Your task to perform on an android device: Open internet settings Image 0: 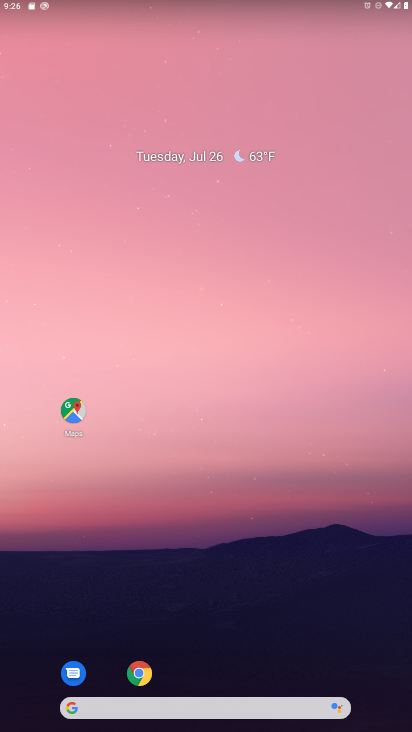
Step 0: drag from (340, 619) to (173, 100)
Your task to perform on an android device: Open internet settings Image 1: 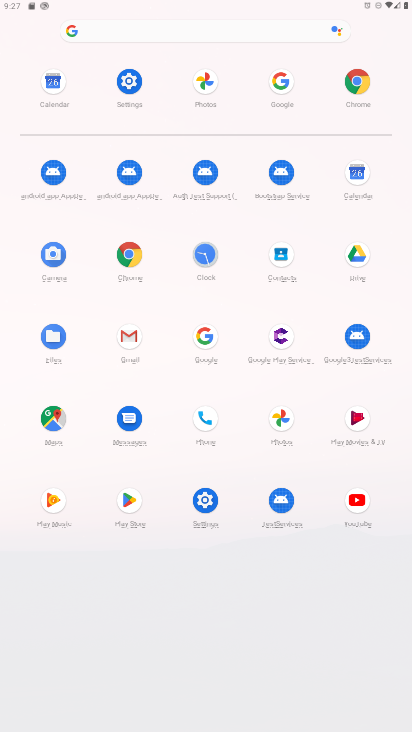
Step 1: click (205, 505)
Your task to perform on an android device: Open internet settings Image 2: 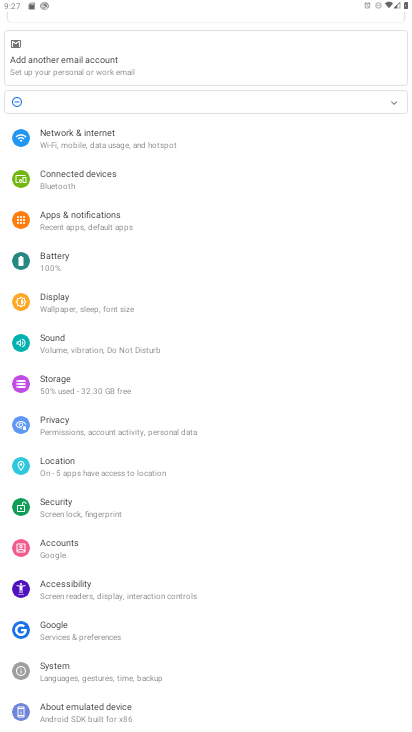
Step 2: click (135, 136)
Your task to perform on an android device: Open internet settings Image 3: 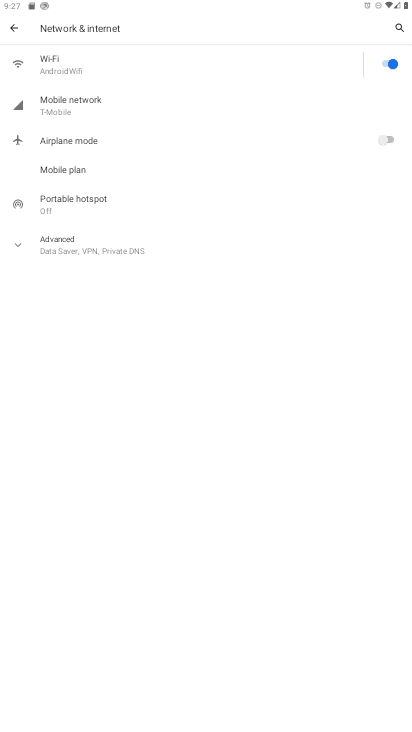
Step 3: task complete